Your task to perform on an android device: toggle javascript in the chrome app Image 0: 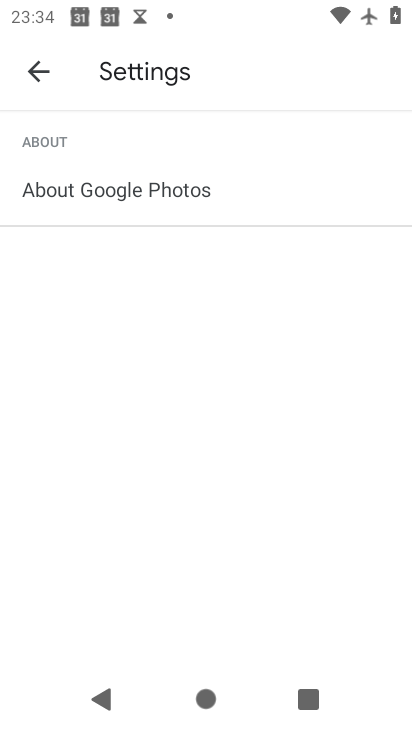
Step 0: press home button
Your task to perform on an android device: toggle javascript in the chrome app Image 1: 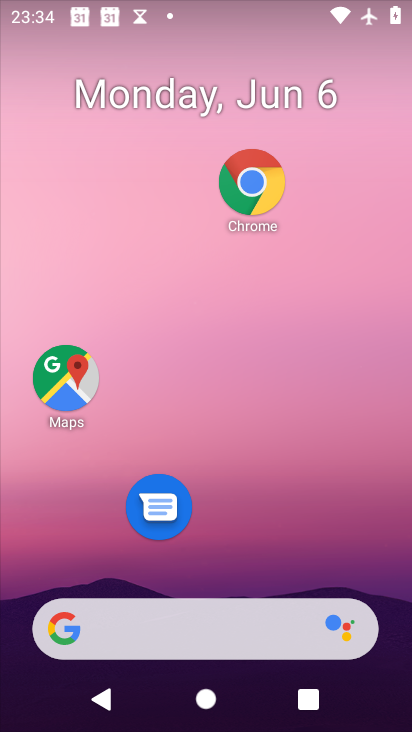
Step 1: click (254, 183)
Your task to perform on an android device: toggle javascript in the chrome app Image 2: 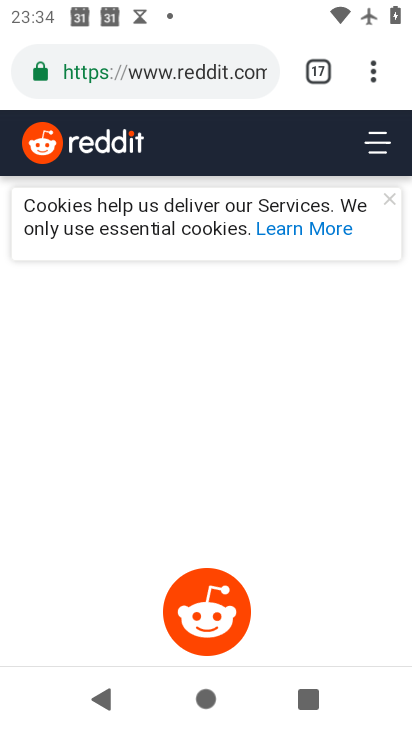
Step 2: click (365, 56)
Your task to perform on an android device: toggle javascript in the chrome app Image 3: 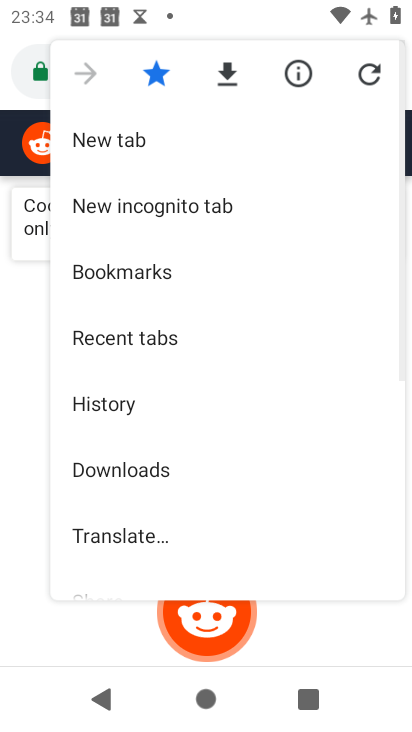
Step 3: drag from (221, 539) to (237, 271)
Your task to perform on an android device: toggle javascript in the chrome app Image 4: 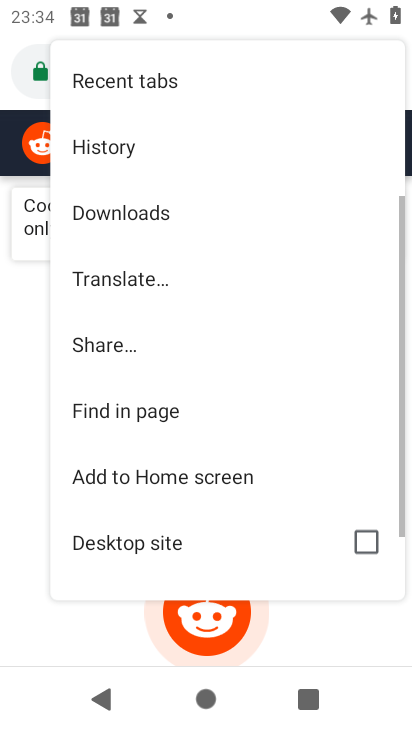
Step 4: drag from (137, 535) to (204, 303)
Your task to perform on an android device: toggle javascript in the chrome app Image 5: 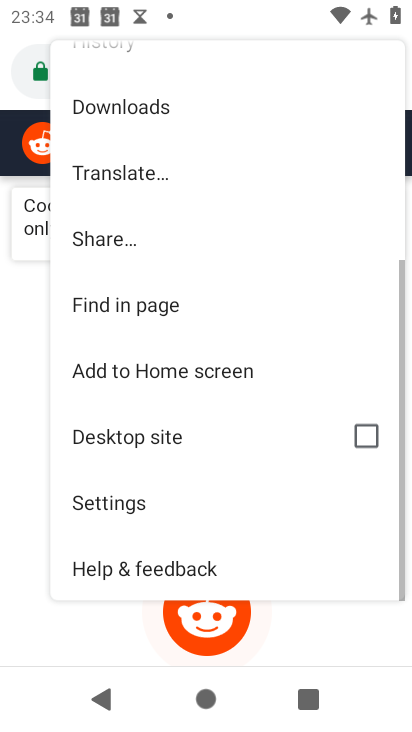
Step 5: click (128, 495)
Your task to perform on an android device: toggle javascript in the chrome app Image 6: 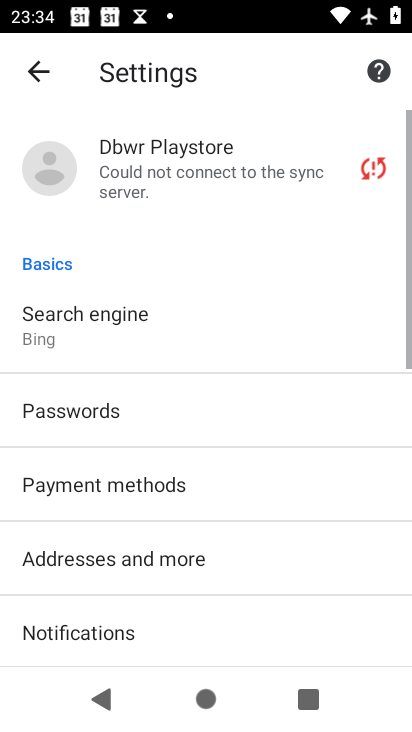
Step 6: drag from (145, 567) to (189, 255)
Your task to perform on an android device: toggle javascript in the chrome app Image 7: 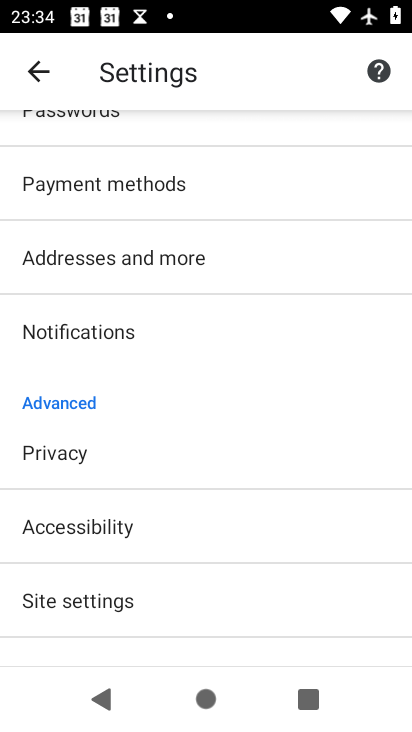
Step 7: click (111, 598)
Your task to perform on an android device: toggle javascript in the chrome app Image 8: 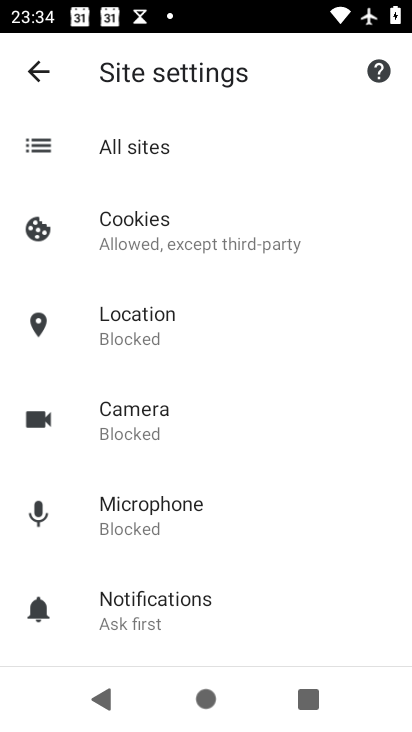
Step 8: drag from (237, 534) to (267, 287)
Your task to perform on an android device: toggle javascript in the chrome app Image 9: 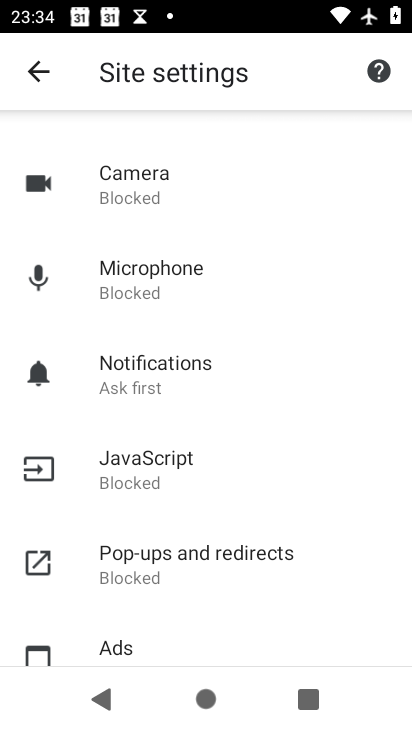
Step 9: click (149, 471)
Your task to perform on an android device: toggle javascript in the chrome app Image 10: 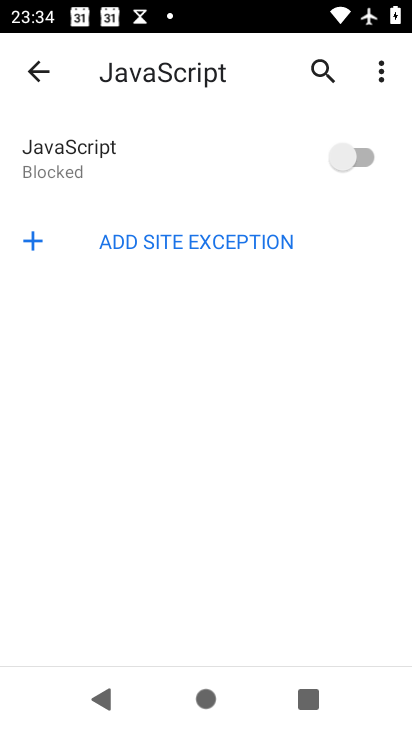
Step 10: click (362, 154)
Your task to perform on an android device: toggle javascript in the chrome app Image 11: 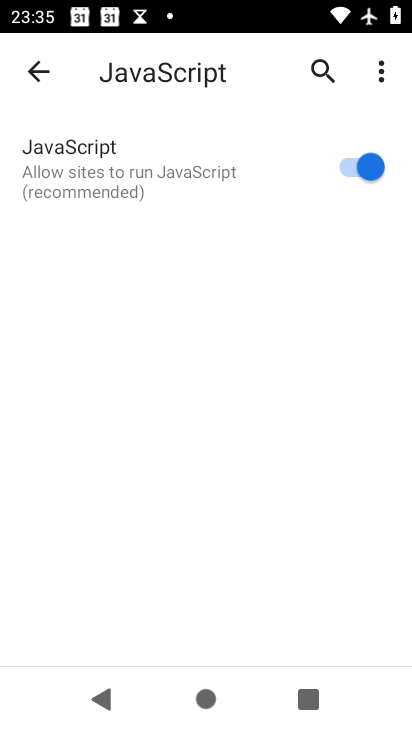
Step 11: task complete